Your task to perform on an android device: allow cookies in the chrome app Image 0: 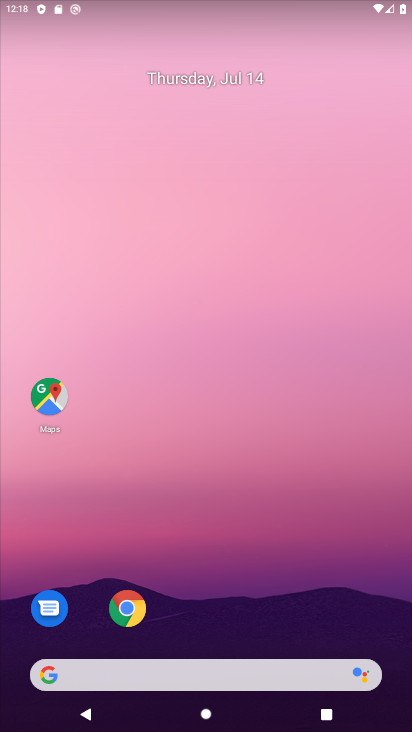
Step 0: click (358, 510)
Your task to perform on an android device: allow cookies in the chrome app Image 1: 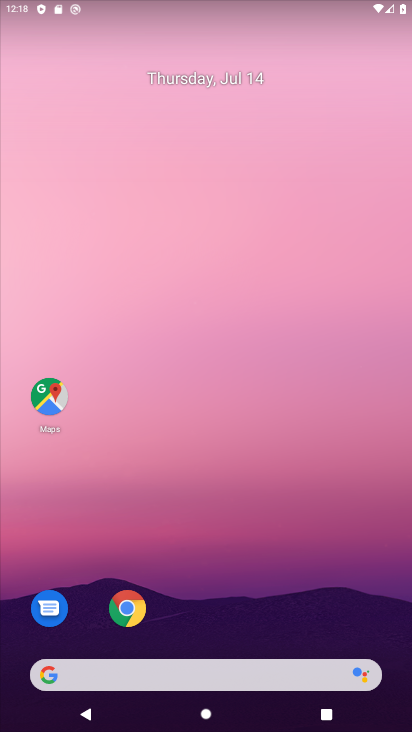
Step 1: drag from (286, 594) to (333, 419)
Your task to perform on an android device: allow cookies in the chrome app Image 2: 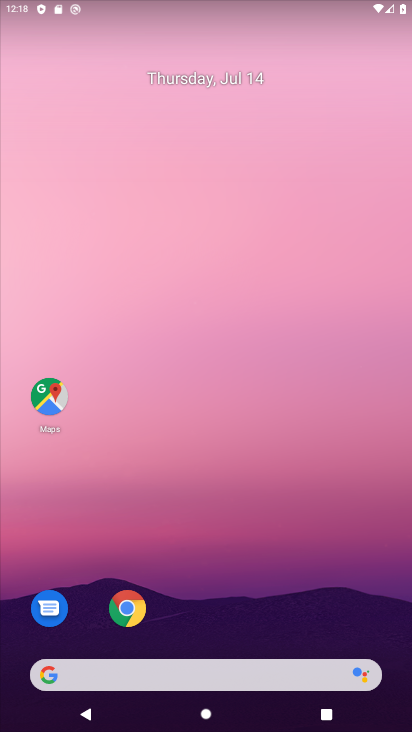
Step 2: drag from (227, 574) to (236, 50)
Your task to perform on an android device: allow cookies in the chrome app Image 3: 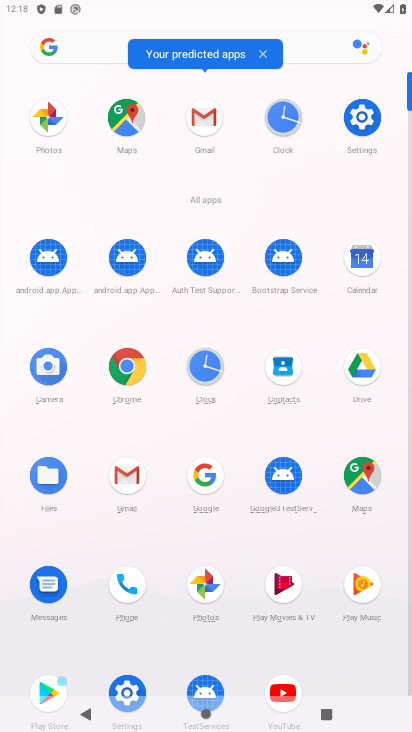
Step 3: click (127, 373)
Your task to perform on an android device: allow cookies in the chrome app Image 4: 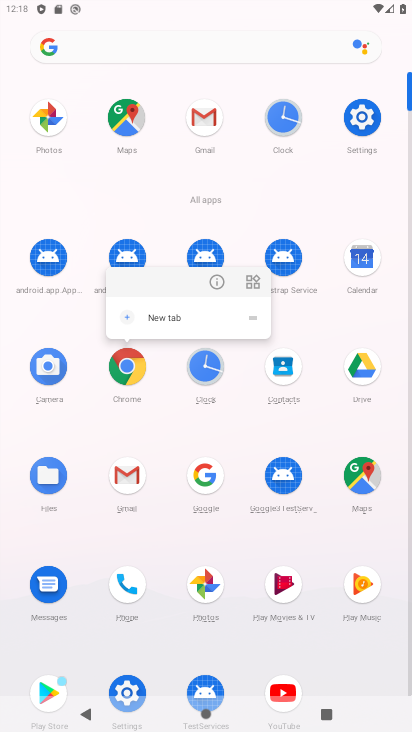
Step 4: click (220, 279)
Your task to perform on an android device: allow cookies in the chrome app Image 5: 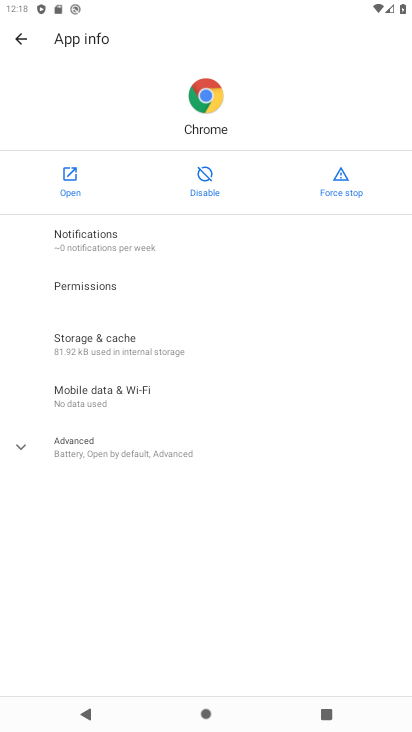
Step 5: drag from (189, 611) to (208, 420)
Your task to perform on an android device: allow cookies in the chrome app Image 6: 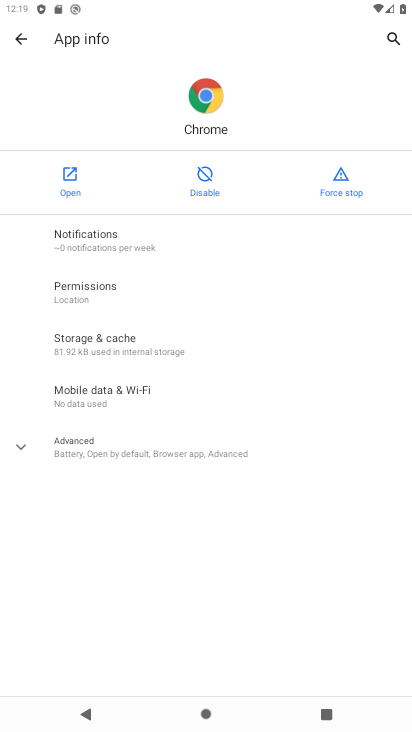
Step 6: click (85, 182)
Your task to perform on an android device: allow cookies in the chrome app Image 7: 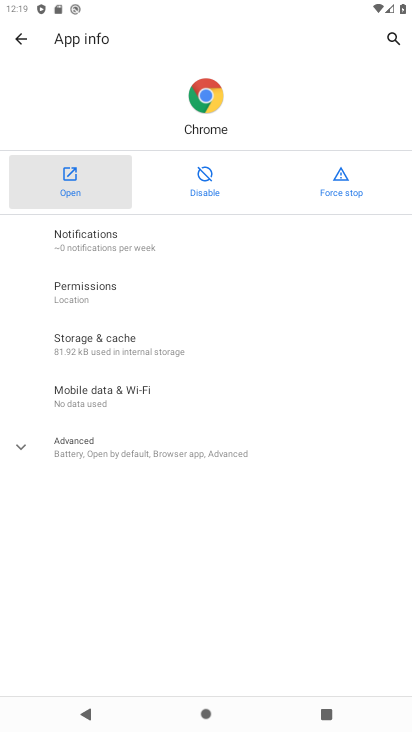
Step 7: click (79, 178)
Your task to perform on an android device: allow cookies in the chrome app Image 8: 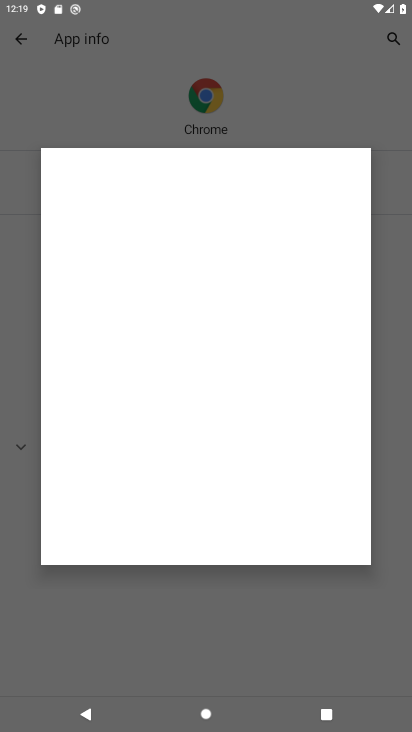
Step 8: drag from (157, 545) to (210, 291)
Your task to perform on an android device: allow cookies in the chrome app Image 9: 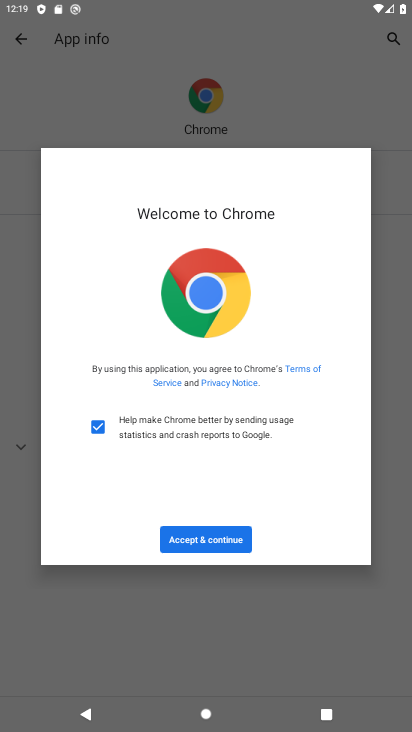
Step 9: click (202, 544)
Your task to perform on an android device: allow cookies in the chrome app Image 10: 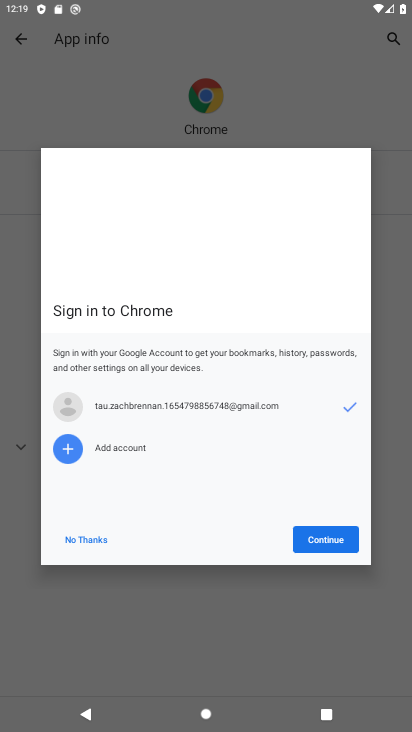
Step 10: click (303, 546)
Your task to perform on an android device: allow cookies in the chrome app Image 11: 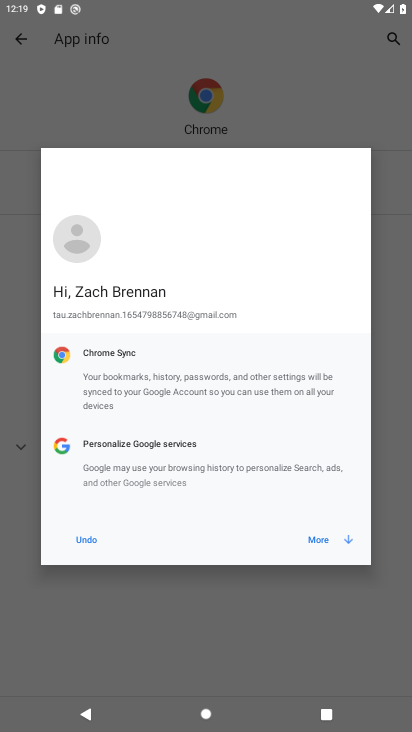
Step 11: click (312, 541)
Your task to perform on an android device: allow cookies in the chrome app Image 12: 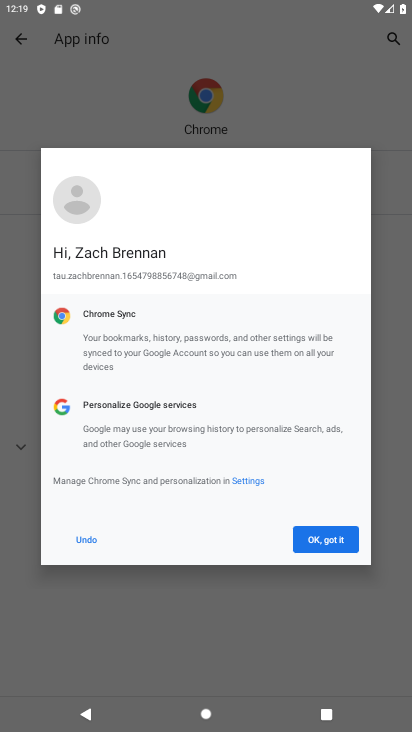
Step 12: click (312, 541)
Your task to perform on an android device: allow cookies in the chrome app Image 13: 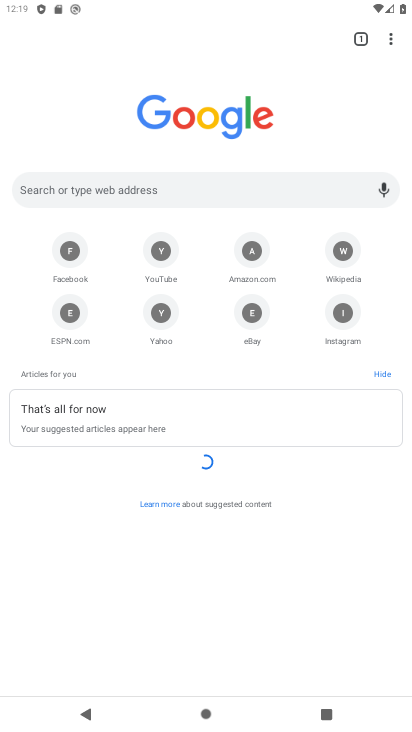
Step 13: click (392, 27)
Your task to perform on an android device: allow cookies in the chrome app Image 14: 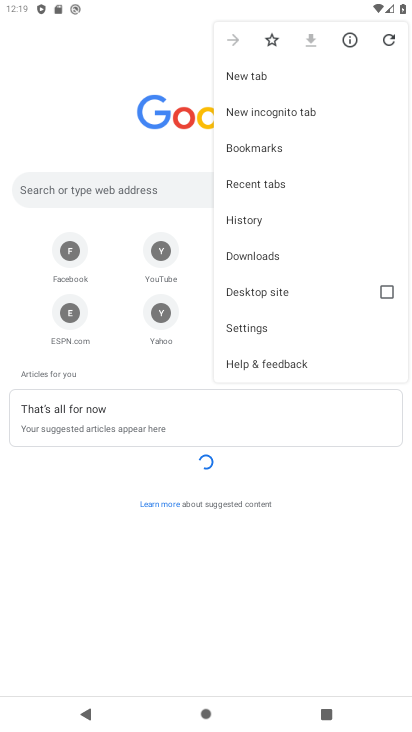
Step 14: click (272, 330)
Your task to perform on an android device: allow cookies in the chrome app Image 15: 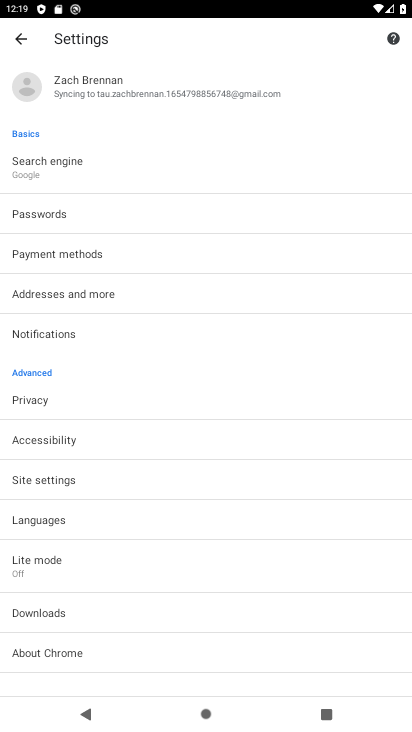
Step 15: click (81, 477)
Your task to perform on an android device: allow cookies in the chrome app Image 16: 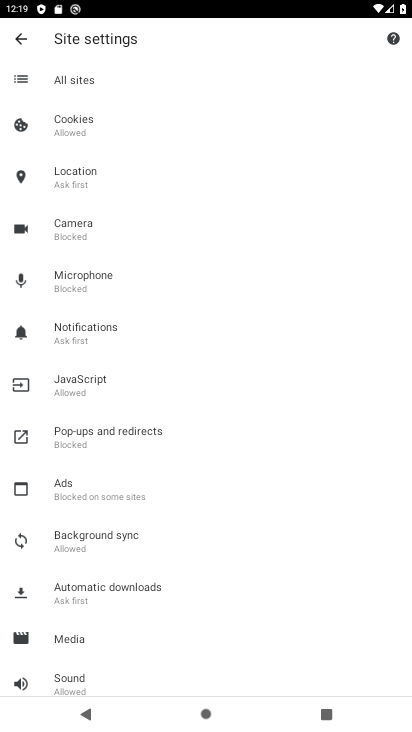
Step 16: click (78, 123)
Your task to perform on an android device: allow cookies in the chrome app Image 17: 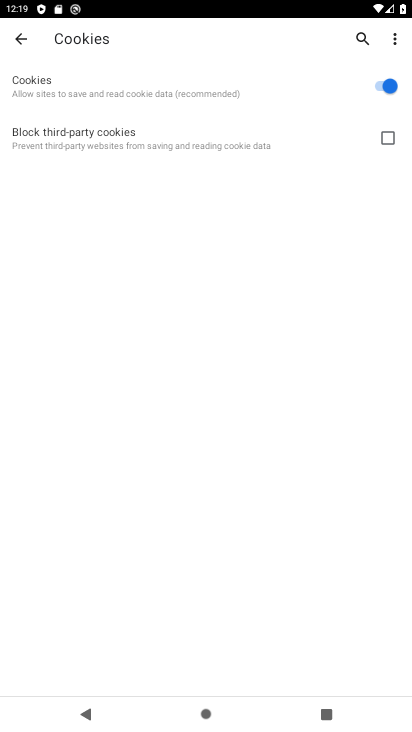
Step 17: task complete